Your task to perform on an android device: Open location settings Image 0: 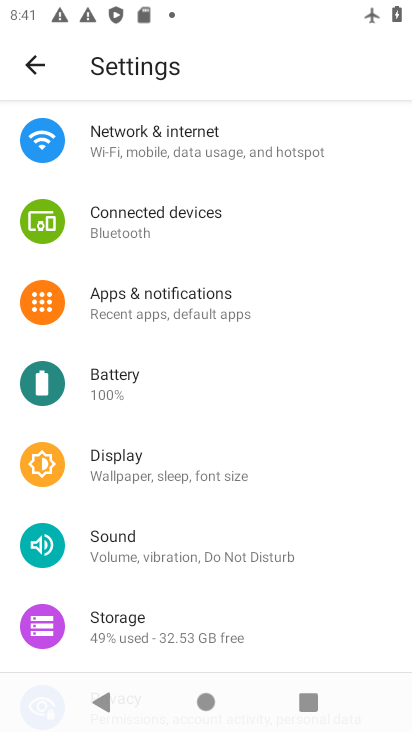
Step 0: drag from (292, 626) to (295, 308)
Your task to perform on an android device: Open location settings Image 1: 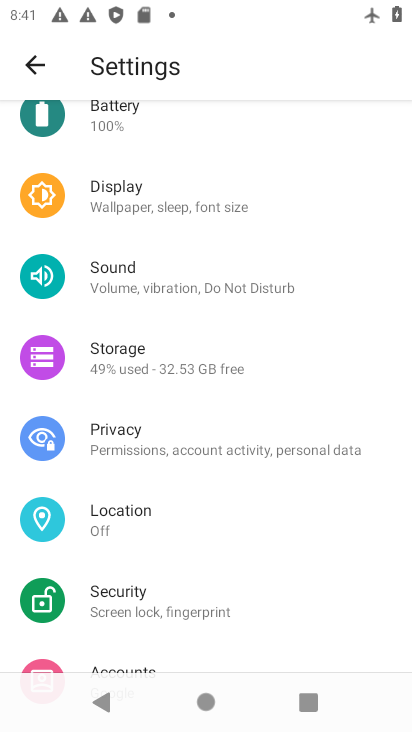
Step 1: click (97, 507)
Your task to perform on an android device: Open location settings Image 2: 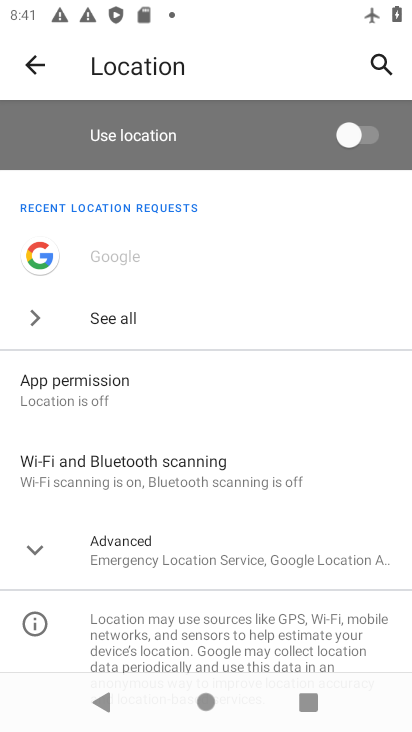
Step 2: click (29, 545)
Your task to perform on an android device: Open location settings Image 3: 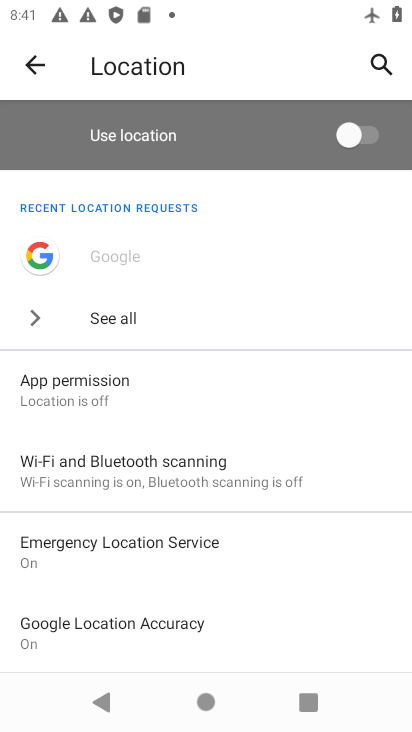
Step 3: task complete